Your task to perform on an android device: delete location history Image 0: 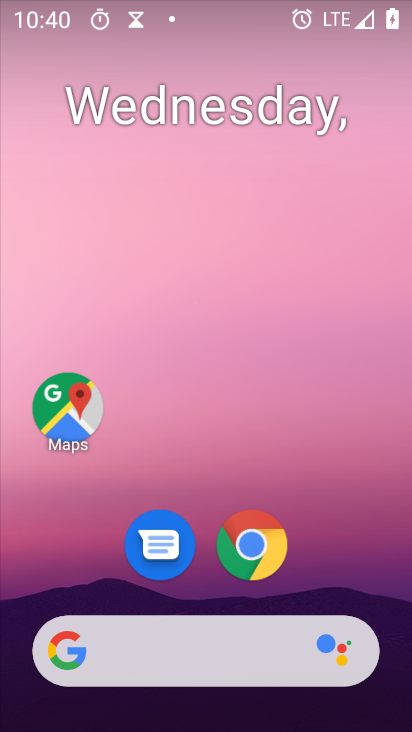
Step 0: click (67, 417)
Your task to perform on an android device: delete location history Image 1: 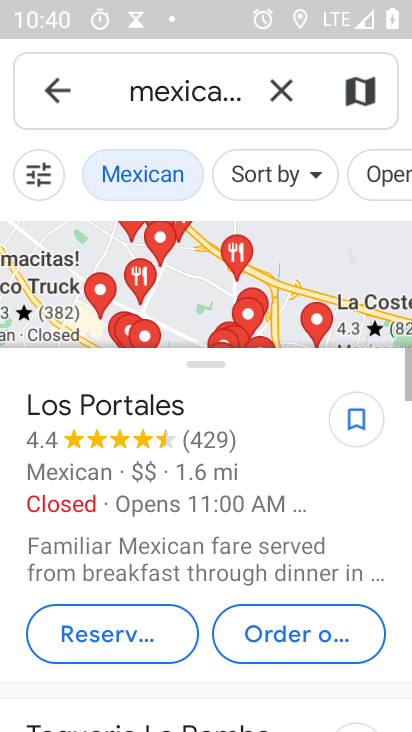
Step 1: click (53, 86)
Your task to perform on an android device: delete location history Image 2: 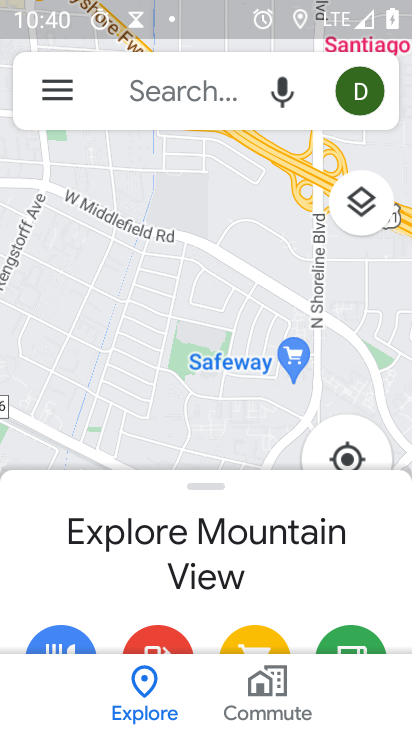
Step 2: click (53, 87)
Your task to perform on an android device: delete location history Image 3: 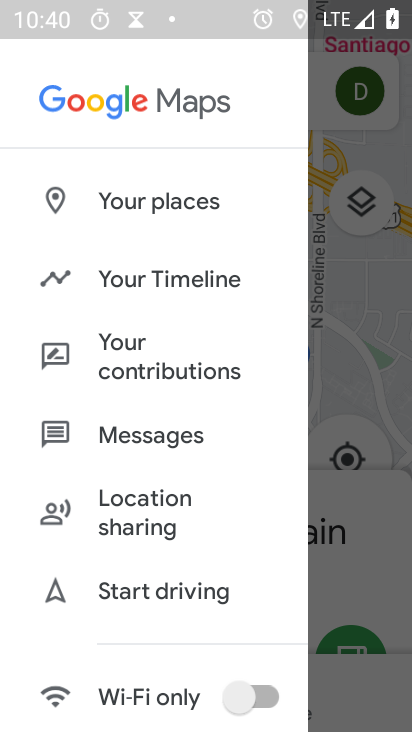
Step 3: click (108, 277)
Your task to perform on an android device: delete location history Image 4: 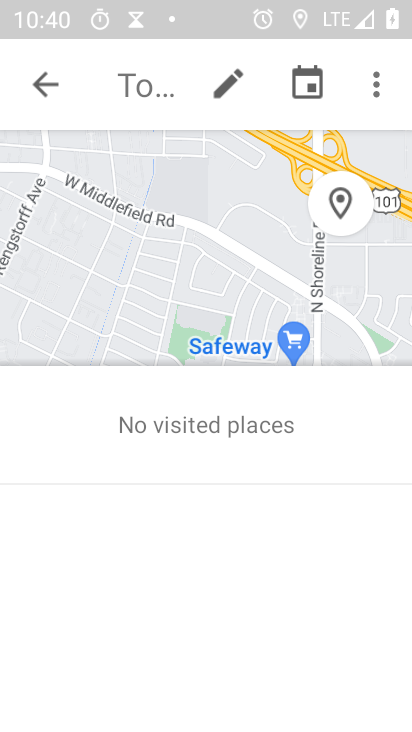
Step 4: click (376, 93)
Your task to perform on an android device: delete location history Image 5: 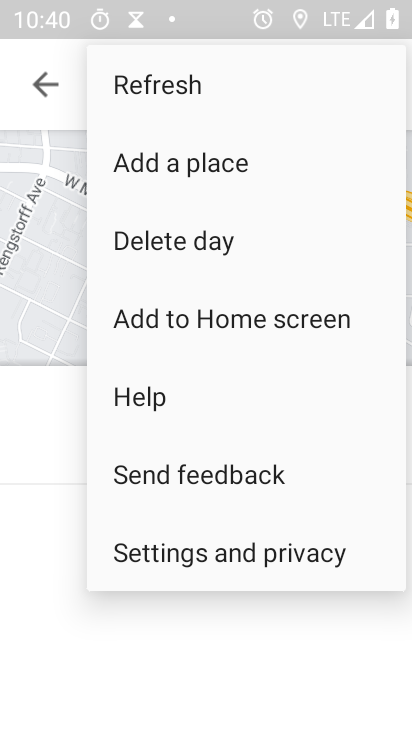
Step 5: click (203, 545)
Your task to perform on an android device: delete location history Image 6: 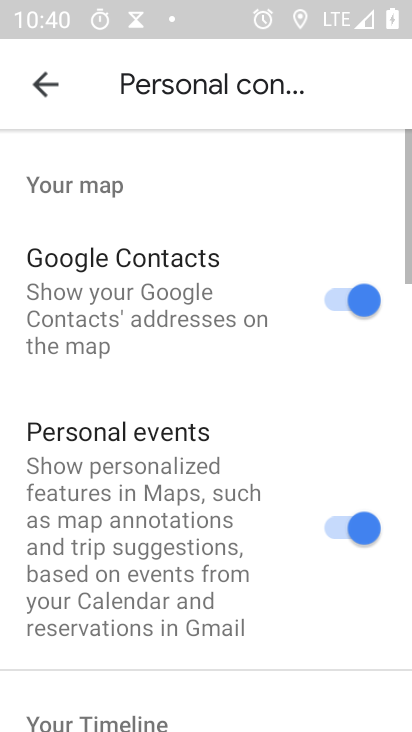
Step 6: drag from (185, 639) to (316, 88)
Your task to perform on an android device: delete location history Image 7: 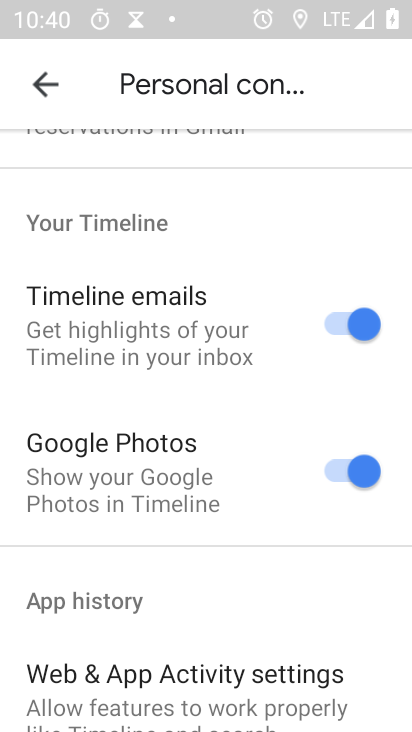
Step 7: drag from (202, 676) to (307, 161)
Your task to perform on an android device: delete location history Image 8: 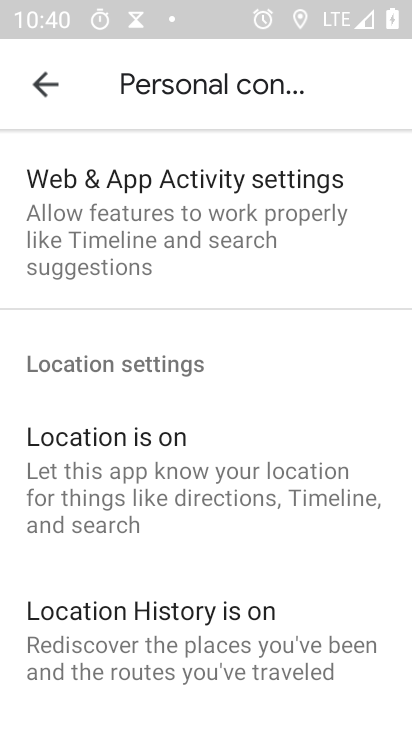
Step 8: drag from (182, 654) to (288, 194)
Your task to perform on an android device: delete location history Image 9: 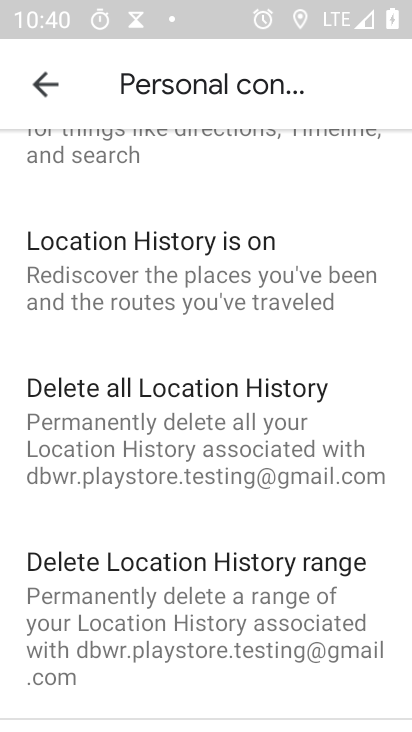
Step 9: click (207, 426)
Your task to perform on an android device: delete location history Image 10: 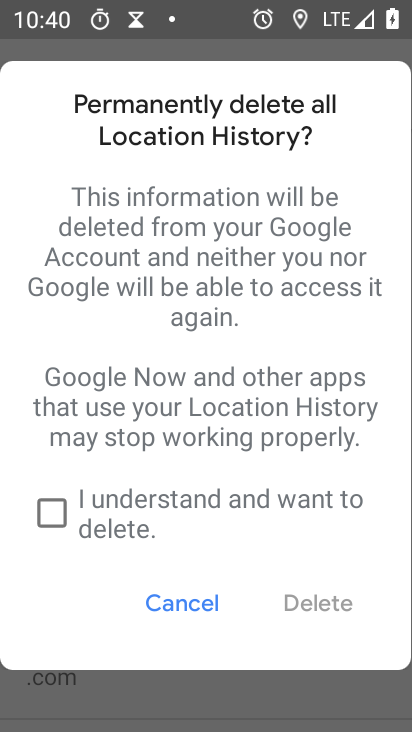
Step 10: click (59, 510)
Your task to perform on an android device: delete location history Image 11: 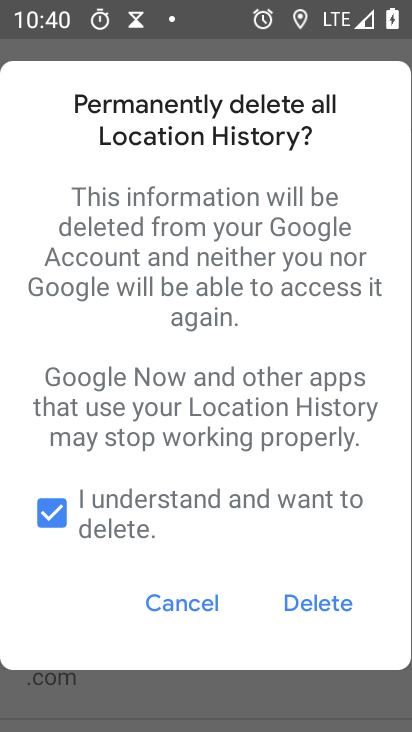
Step 11: click (335, 610)
Your task to perform on an android device: delete location history Image 12: 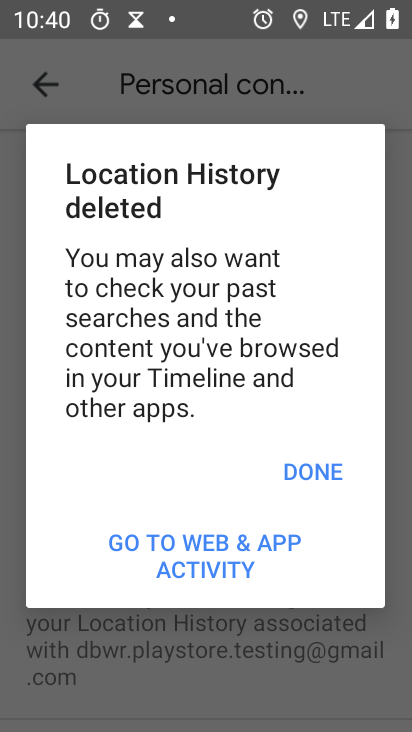
Step 12: click (309, 475)
Your task to perform on an android device: delete location history Image 13: 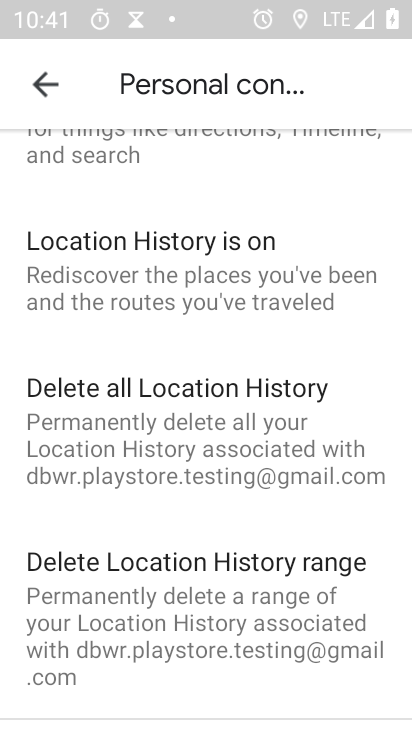
Step 13: task complete